Your task to perform on an android device: Go to eBay Image 0: 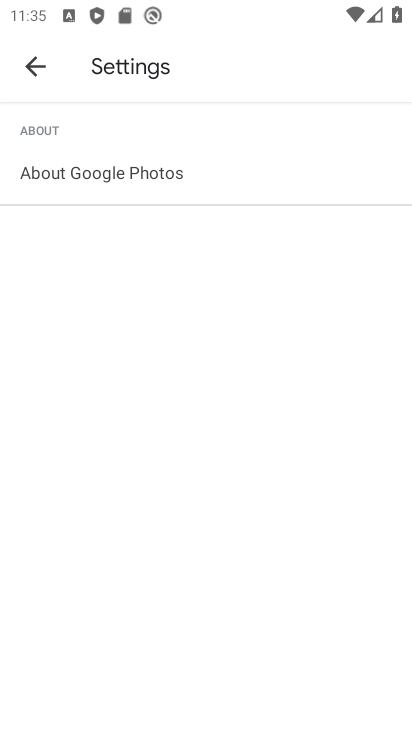
Step 0: press home button
Your task to perform on an android device: Go to eBay Image 1: 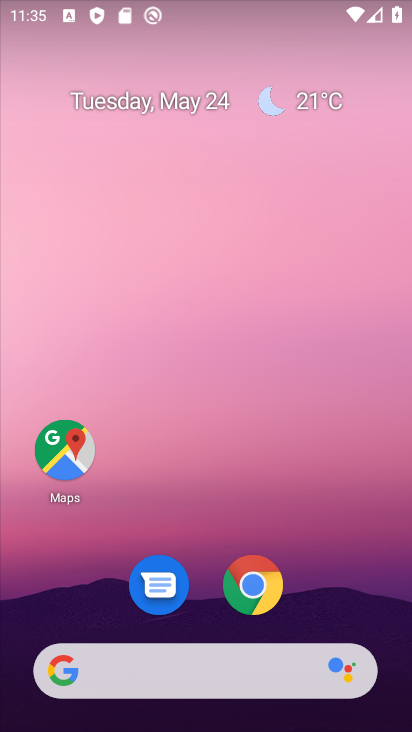
Step 1: click (271, 675)
Your task to perform on an android device: Go to eBay Image 2: 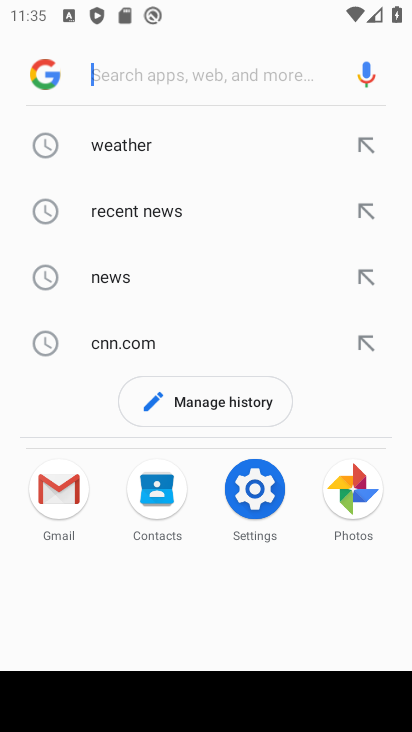
Step 2: type "ebay"
Your task to perform on an android device: Go to eBay Image 3: 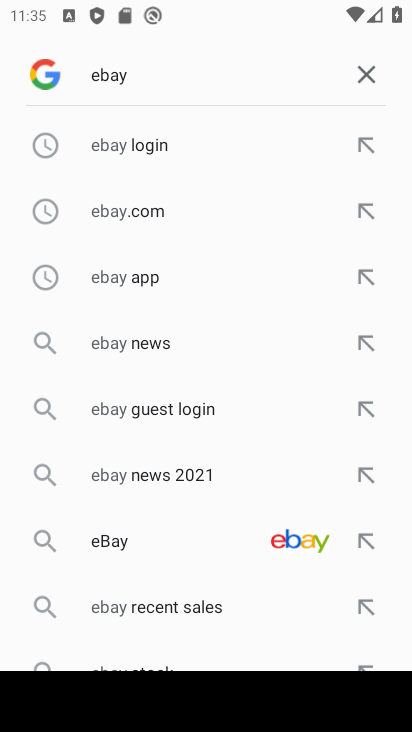
Step 3: click (110, 542)
Your task to perform on an android device: Go to eBay Image 4: 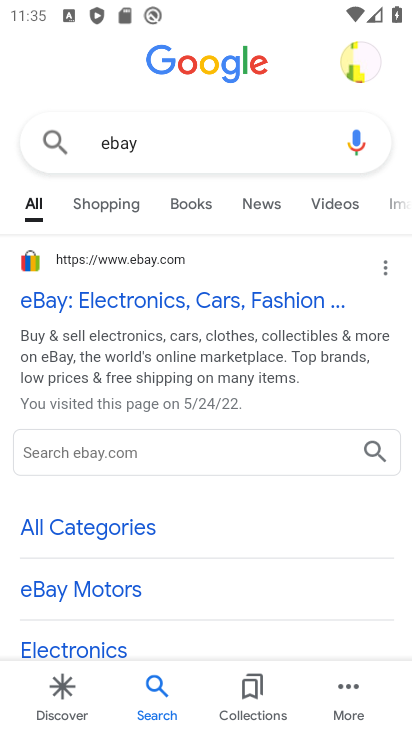
Step 4: click (47, 300)
Your task to perform on an android device: Go to eBay Image 5: 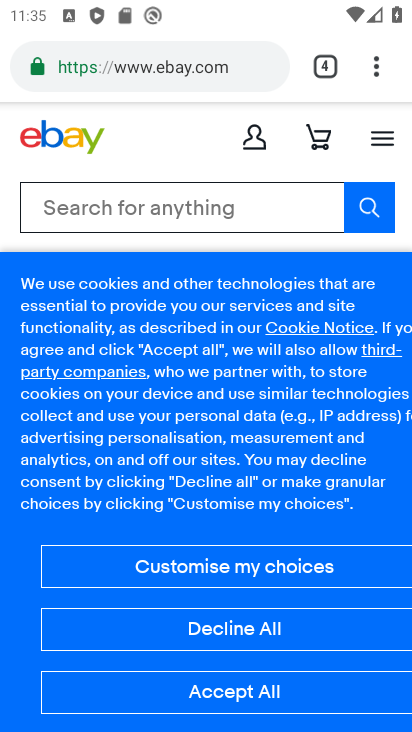
Step 5: task complete